Your task to perform on an android device: set an alarm Image 0: 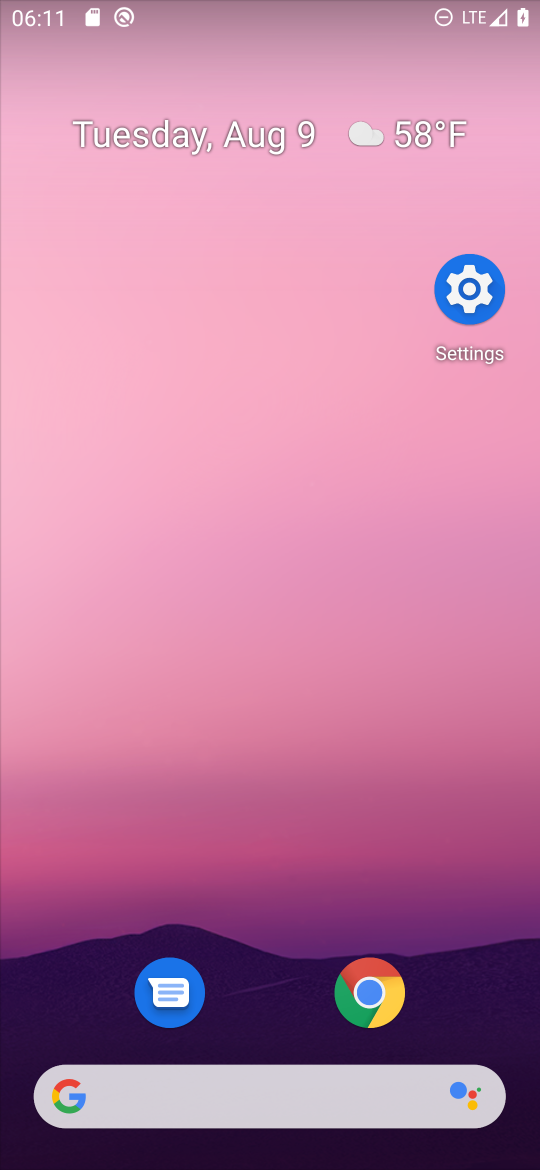
Step 0: drag from (363, 1090) to (322, 345)
Your task to perform on an android device: set an alarm Image 1: 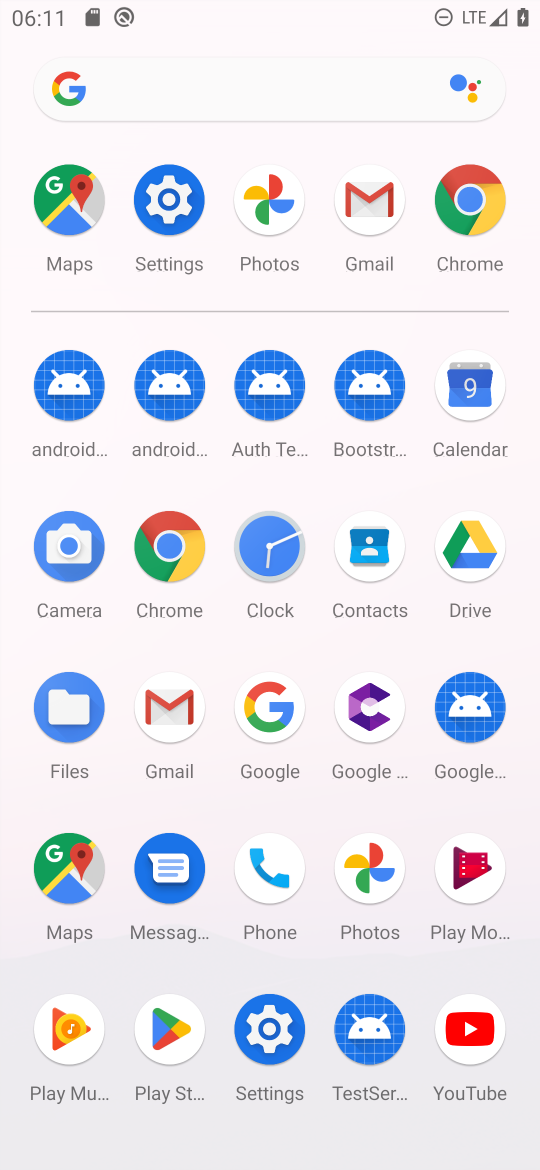
Step 1: click (274, 531)
Your task to perform on an android device: set an alarm Image 2: 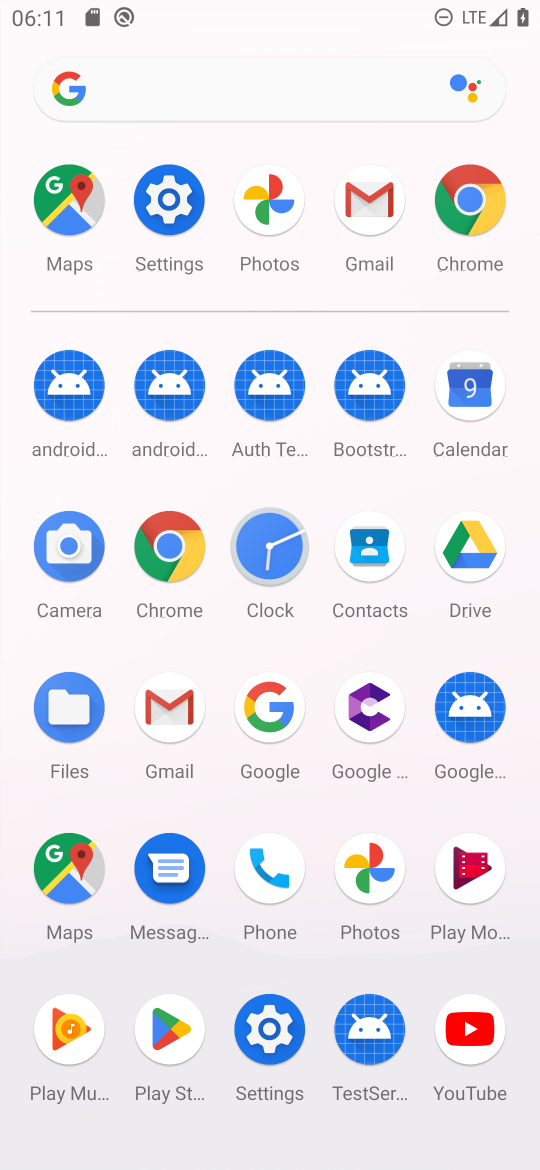
Step 2: click (274, 531)
Your task to perform on an android device: set an alarm Image 3: 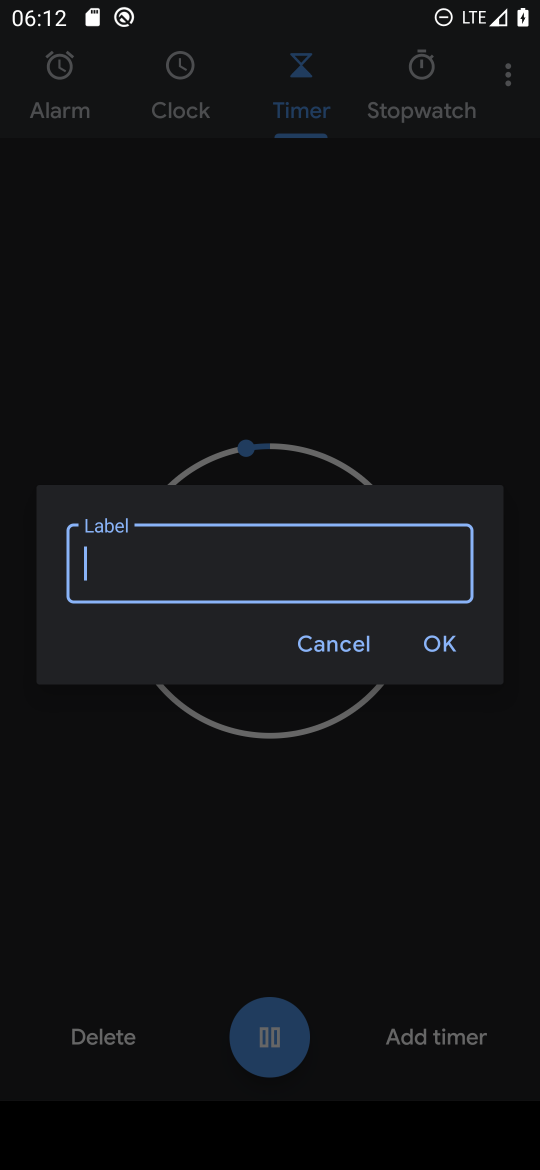
Step 3: click (355, 635)
Your task to perform on an android device: set an alarm Image 4: 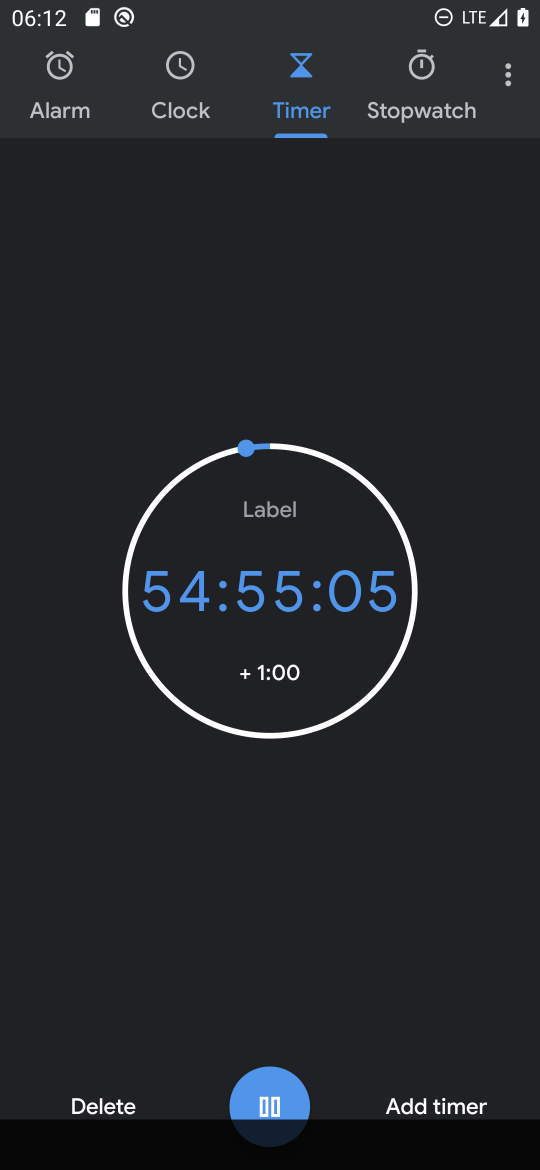
Step 4: click (224, 267)
Your task to perform on an android device: set an alarm Image 5: 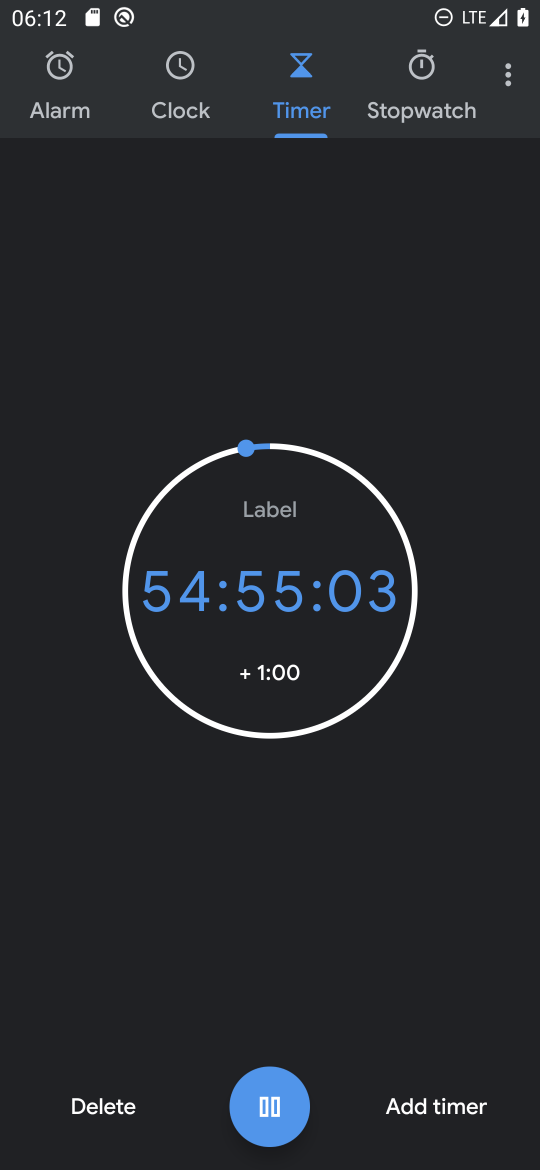
Step 5: click (58, 62)
Your task to perform on an android device: set an alarm Image 6: 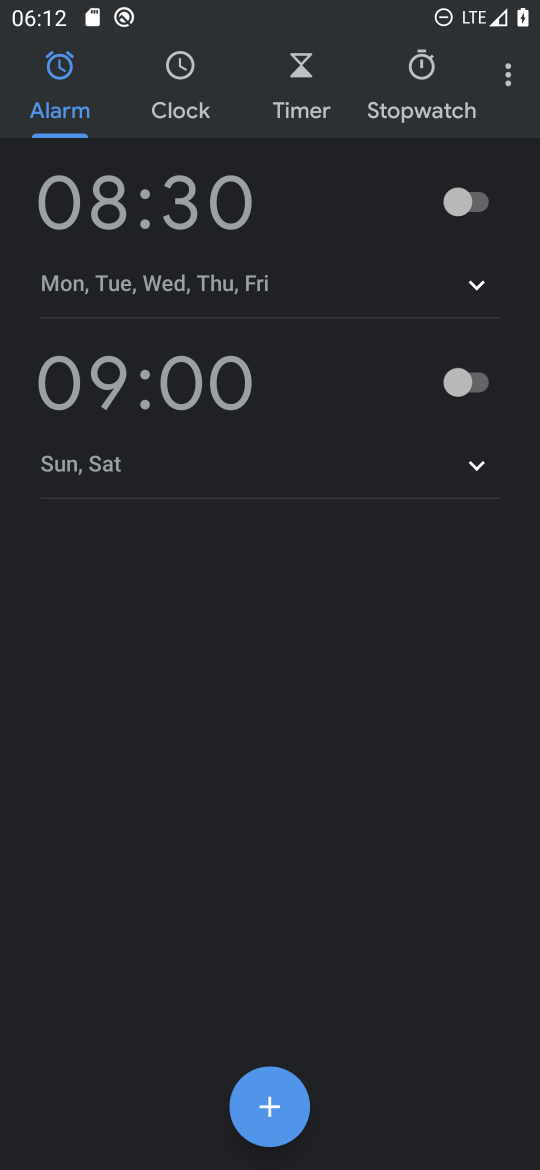
Step 6: click (468, 203)
Your task to perform on an android device: set an alarm Image 7: 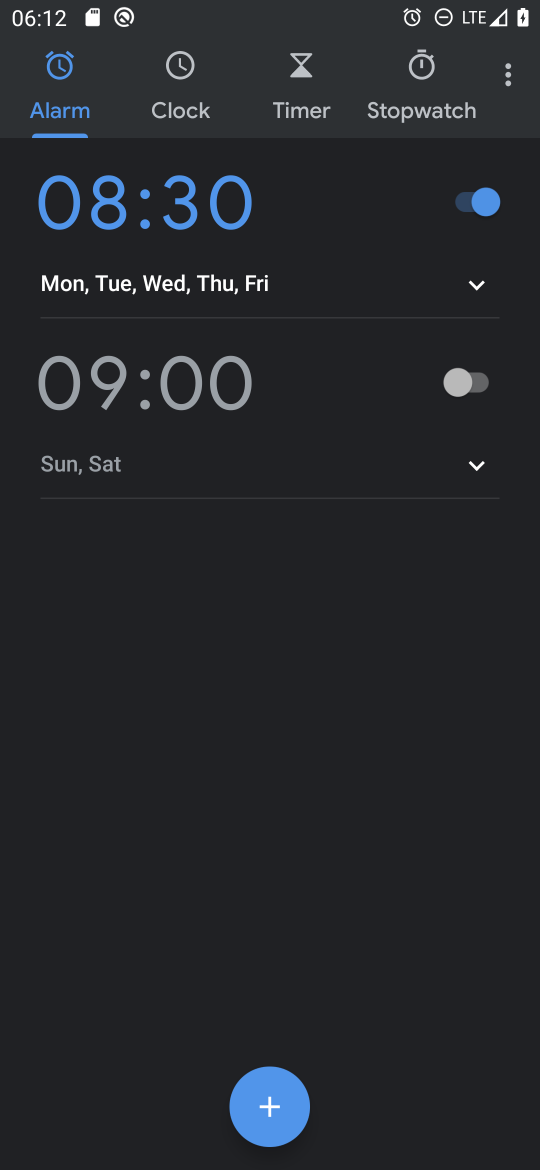
Step 7: task complete